Your task to perform on an android device: turn on sleep mode Image 0: 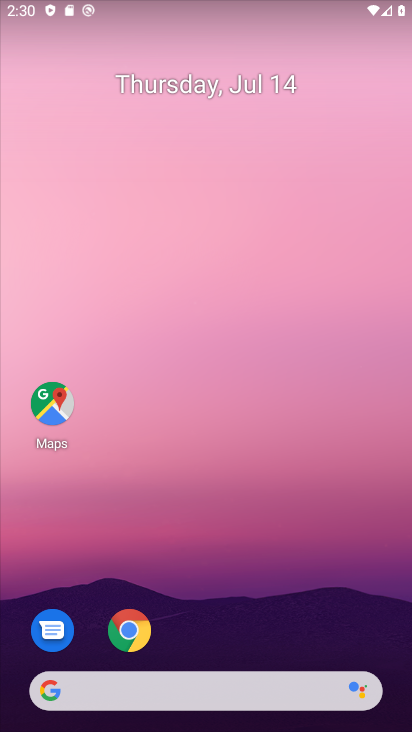
Step 0: drag from (221, 651) to (225, 164)
Your task to perform on an android device: turn on sleep mode Image 1: 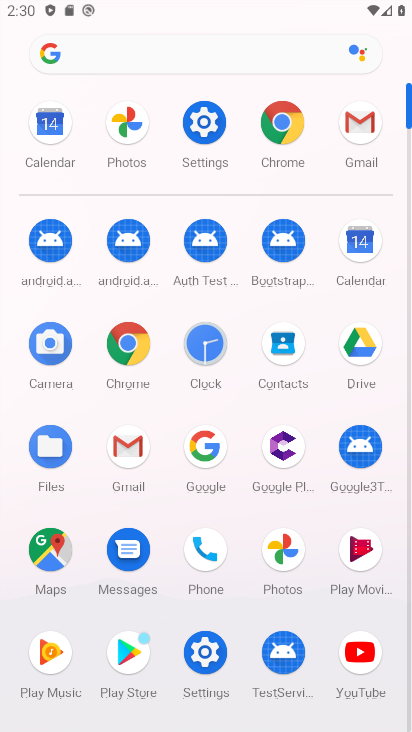
Step 1: click (201, 111)
Your task to perform on an android device: turn on sleep mode Image 2: 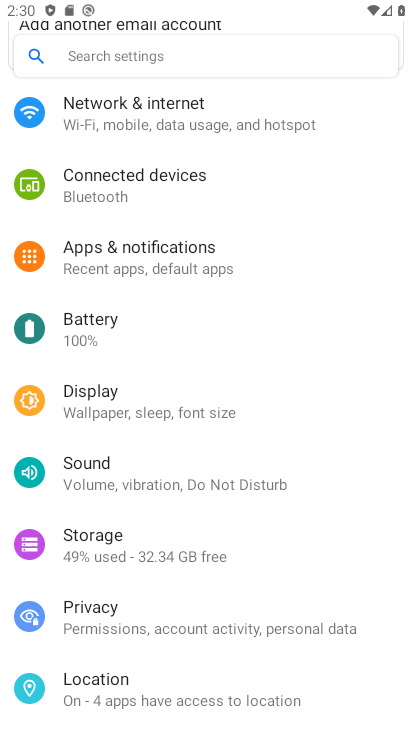
Step 2: click (140, 391)
Your task to perform on an android device: turn on sleep mode Image 3: 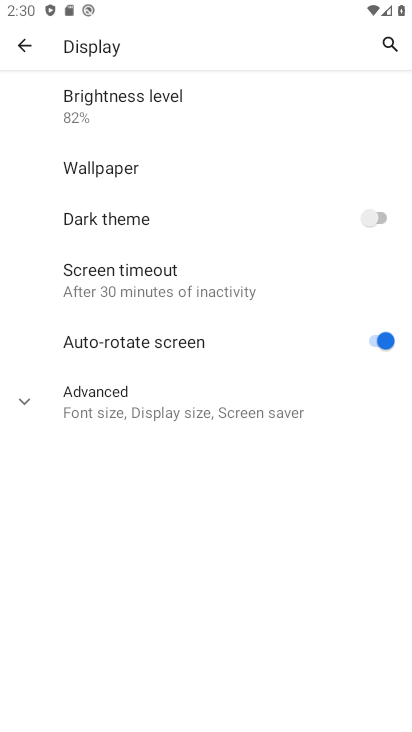
Step 3: click (24, 402)
Your task to perform on an android device: turn on sleep mode Image 4: 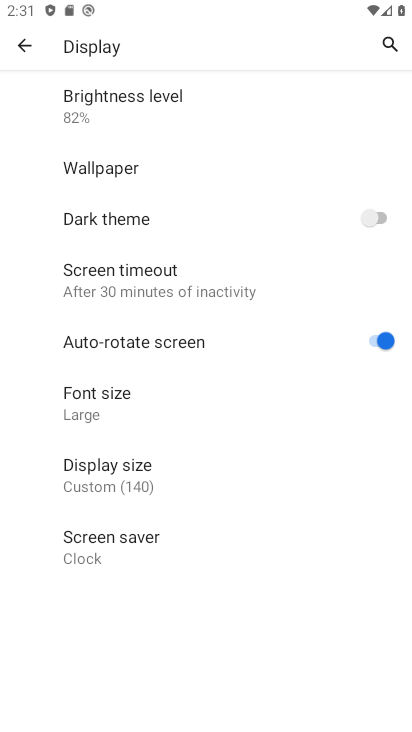
Step 4: task complete